Your task to perform on an android device: toggle wifi Image 0: 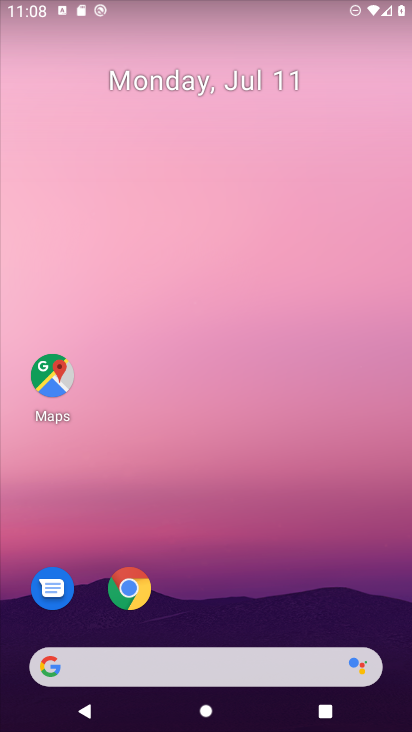
Step 0: drag from (169, 0) to (302, 550)
Your task to perform on an android device: toggle wifi Image 1: 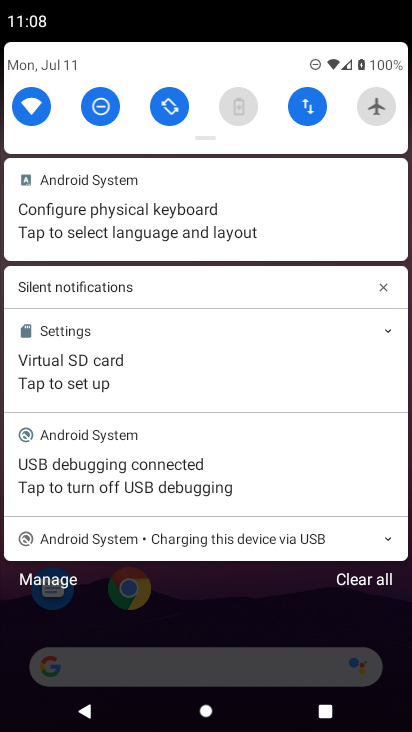
Step 1: click (35, 110)
Your task to perform on an android device: toggle wifi Image 2: 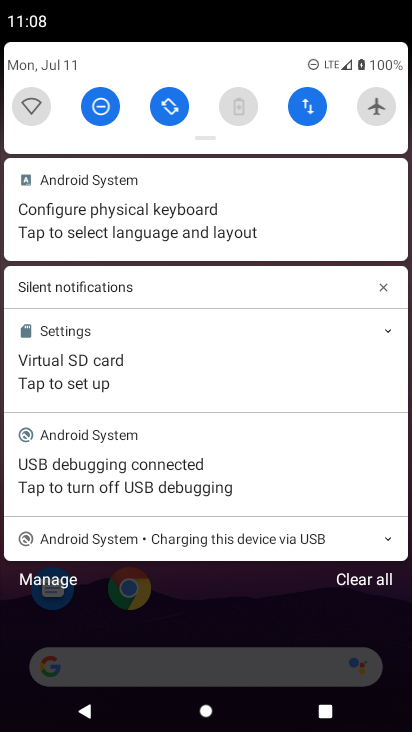
Step 2: task complete